Your task to perform on an android device: Open settings on Google Maps Image 0: 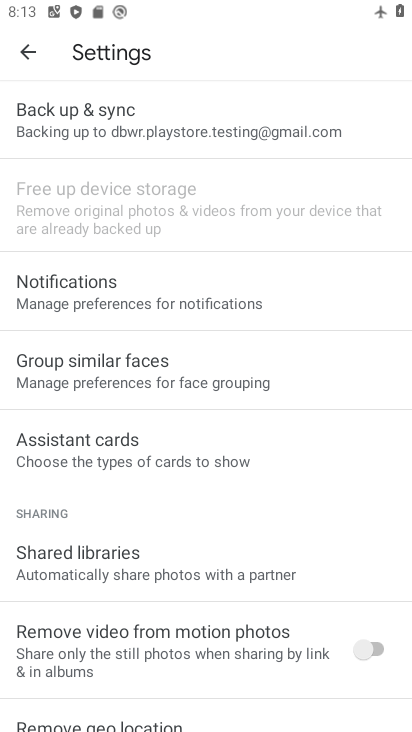
Step 0: press home button
Your task to perform on an android device: Open settings on Google Maps Image 1: 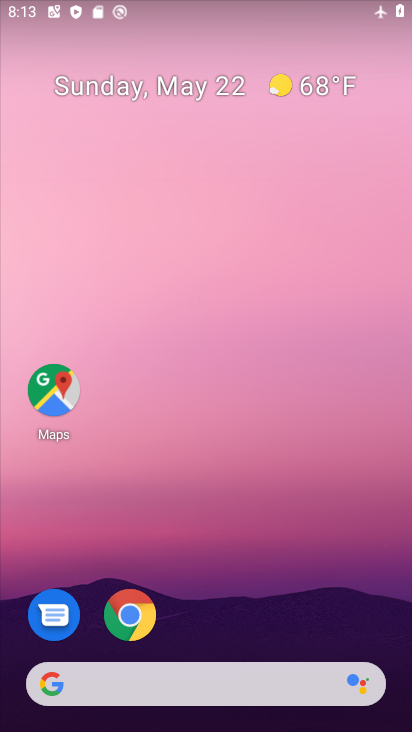
Step 1: drag from (237, 636) to (346, 25)
Your task to perform on an android device: Open settings on Google Maps Image 2: 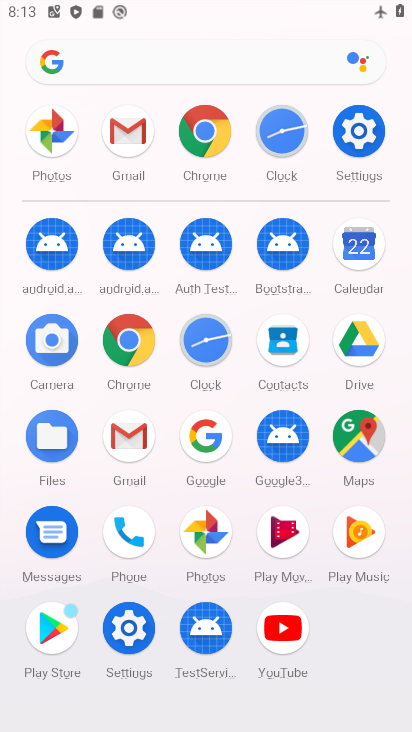
Step 2: click (362, 445)
Your task to perform on an android device: Open settings on Google Maps Image 3: 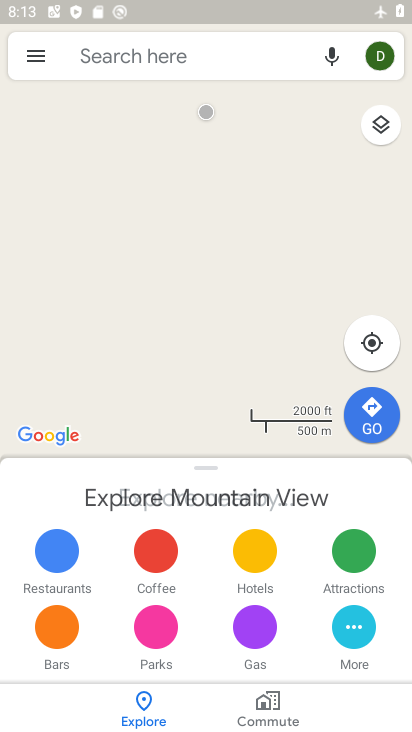
Step 3: click (25, 61)
Your task to perform on an android device: Open settings on Google Maps Image 4: 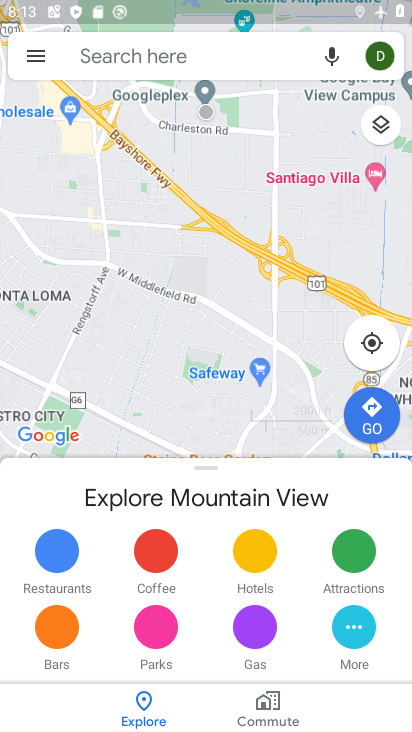
Step 4: click (35, 54)
Your task to perform on an android device: Open settings on Google Maps Image 5: 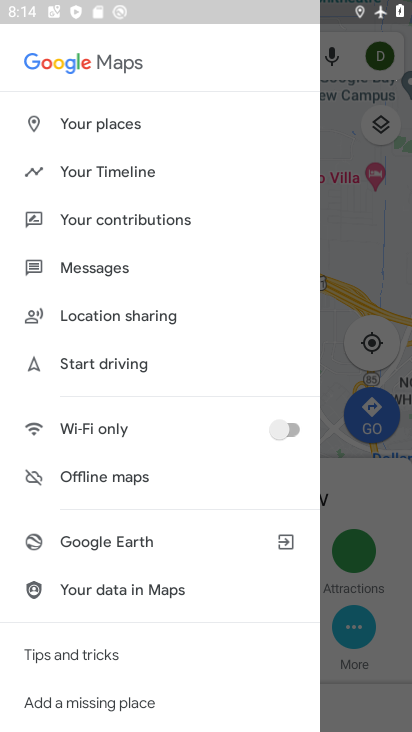
Step 5: drag from (186, 689) to (91, 85)
Your task to perform on an android device: Open settings on Google Maps Image 6: 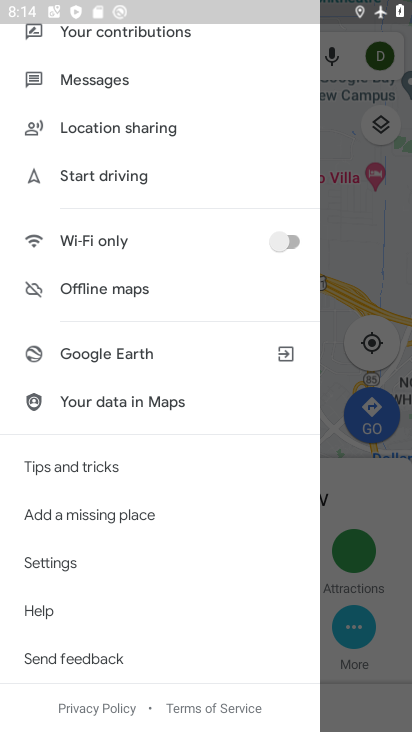
Step 6: click (33, 567)
Your task to perform on an android device: Open settings on Google Maps Image 7: 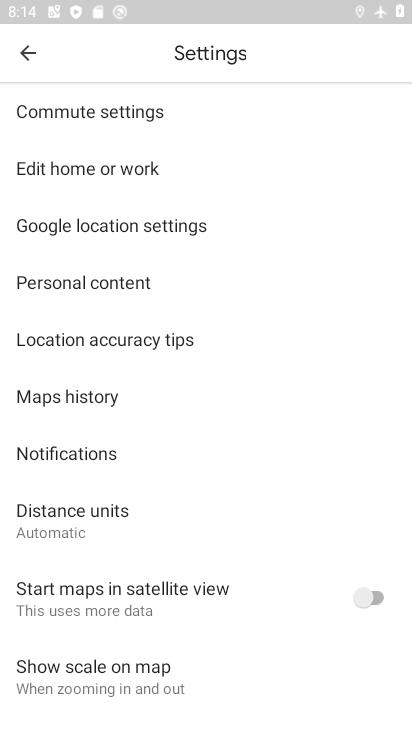
Step 7: task complete